Your task to perform on an android device: Go to sound settings Image 0: 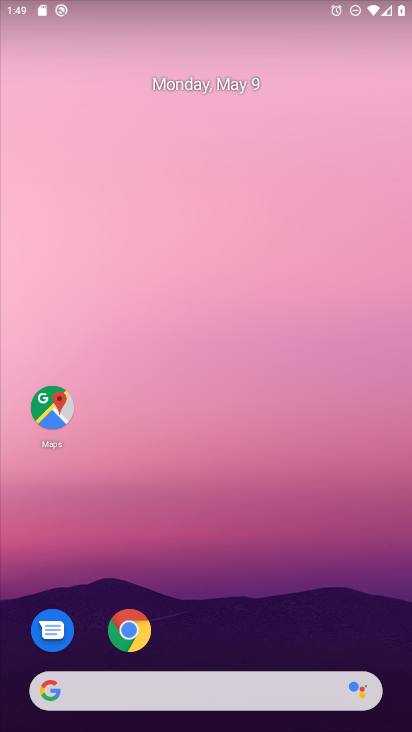
Step 0: drag from (272, 688) to (372, 210)
Your task to perform on an android device: Go to sound settings Image 1: 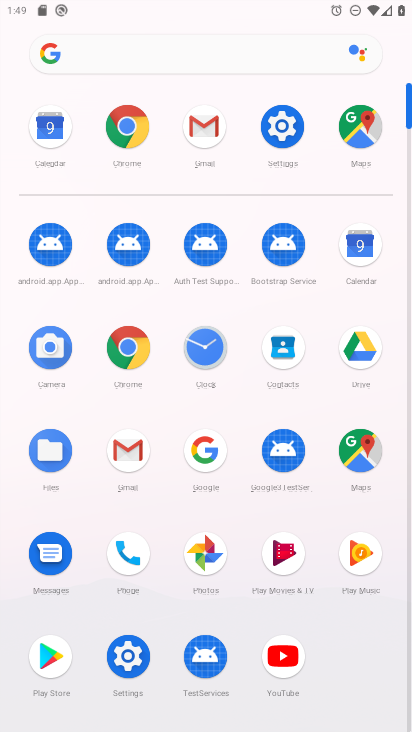
Step 1: click (270, 142)
Your task to perform on an android device: Go to sound settings Image 2: 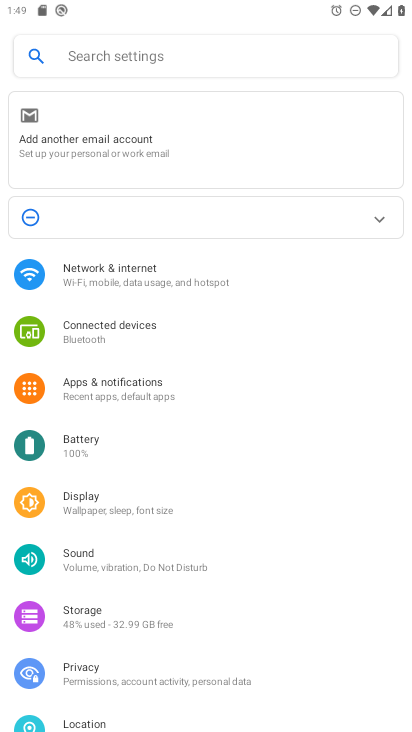
Step 2: click (104, 555)
Your task to perform on an android device: Go to sound settings Image 3: 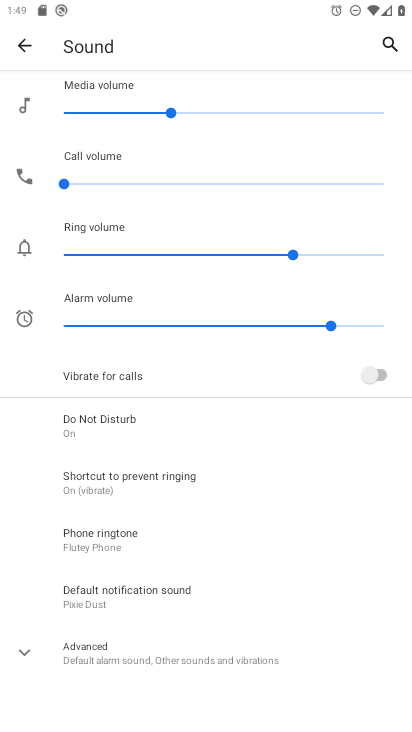
Step 3: task complete